Your task to perform on an android device: See recent photos Image 0: 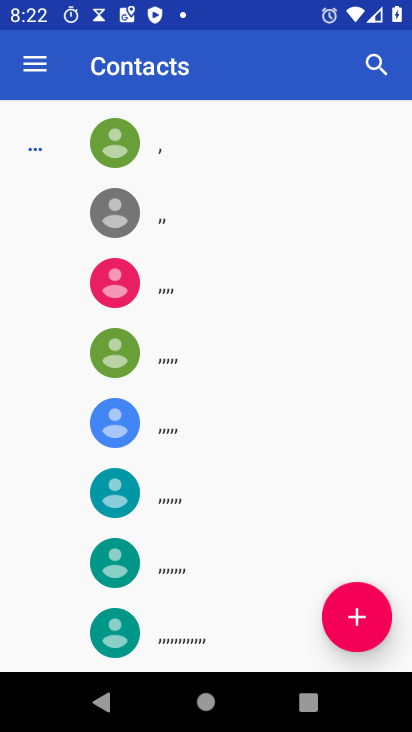
Step 0: press home button
Your task to perform on an android device: See recent photos Image 1: 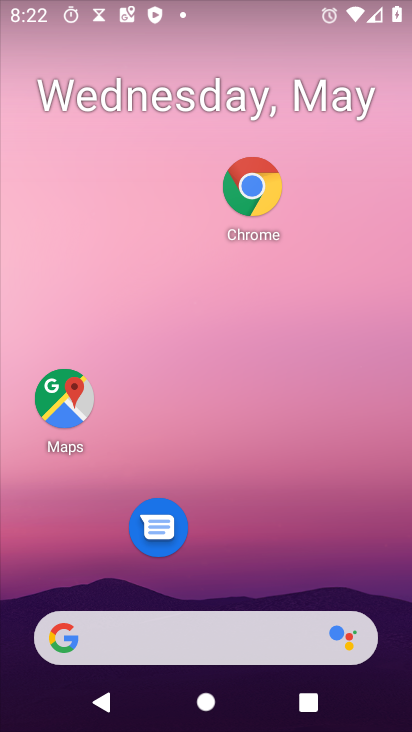
Step 1: drag from (267, 519) to (306, 146)
Your task to perform on an android device: See recent photos Image 2: 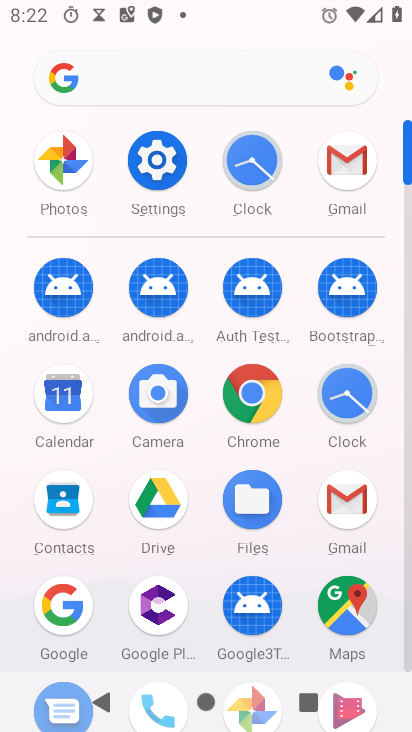
Step 2: drag from (294, 338) to (304, 99)
Your task to perform on an android device: See recent photos Image 3: 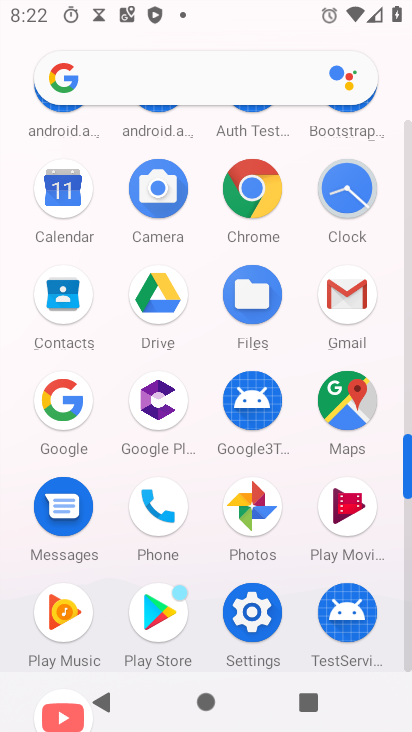
Step 3: click (264, 504)
Your task to perform on an android device: See recent photos Image 4: 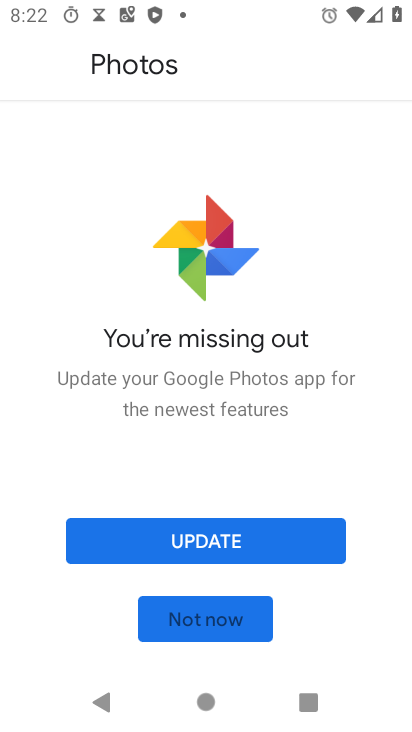
Step 4: click (225, 541)
Your task to perform on an android device: See recent photos Image 5: 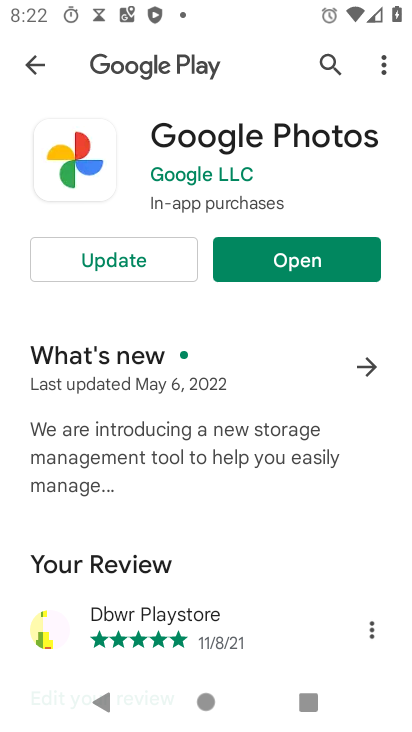
Step 5: click (154, 265)
Your task to perform on an android device: See recent photos Image 6: 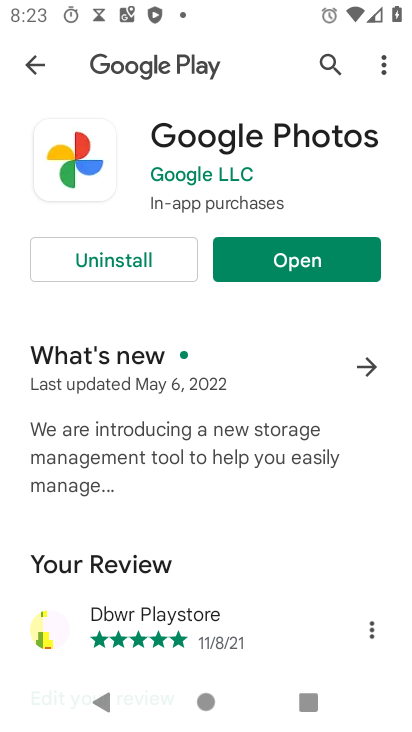
Step 6: click (314, 249)
Your task to perform on an android device: See recent photos Image 7: 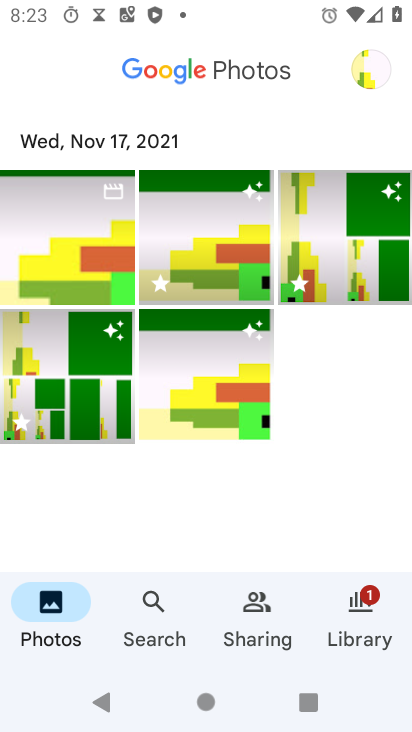
Step 7: click (24, 601)
Your task to perform on an android device: See recent photos Image 8: 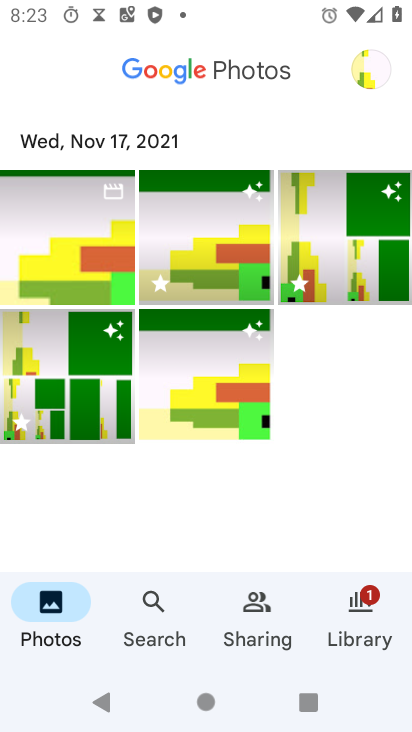
Step 8: task complete